Your task to perform on an android device: Open my contact list Image 0: 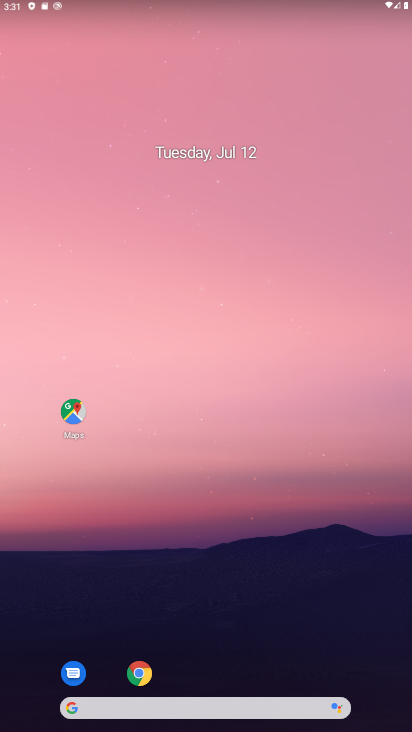
Step 0: drag from (196, 707) to (206, 130)
Your task to perform on an android device: Open my contact list Image 1: 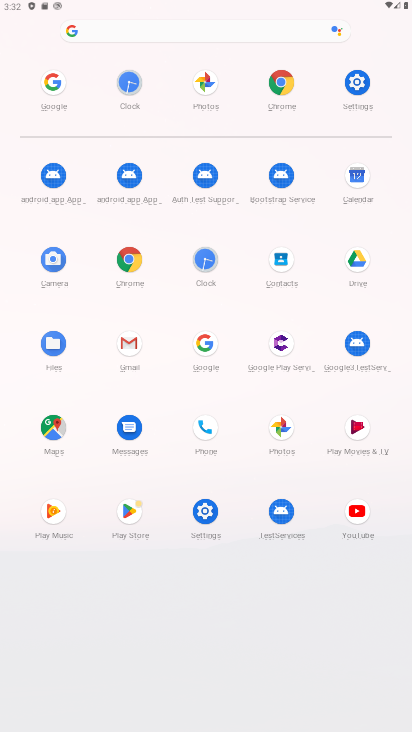
Step 1: click (282, 261)
Your task to perform on an android device: Open my contact list Image 2: 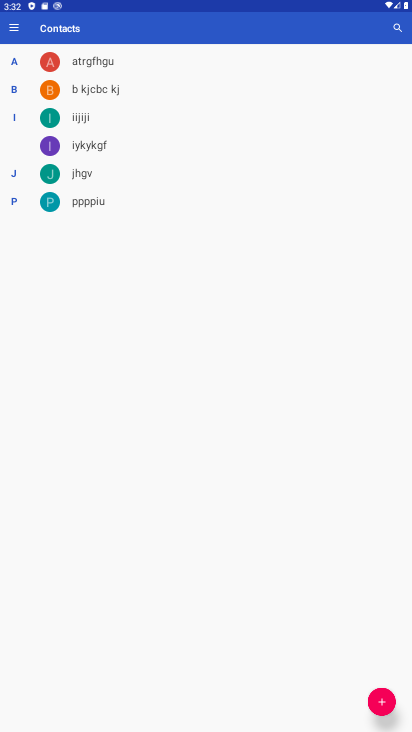
Step 2: task complete